Your task to perform on an android device: Open Google Chrome and click the shortcut for Amazon.com Image 0: 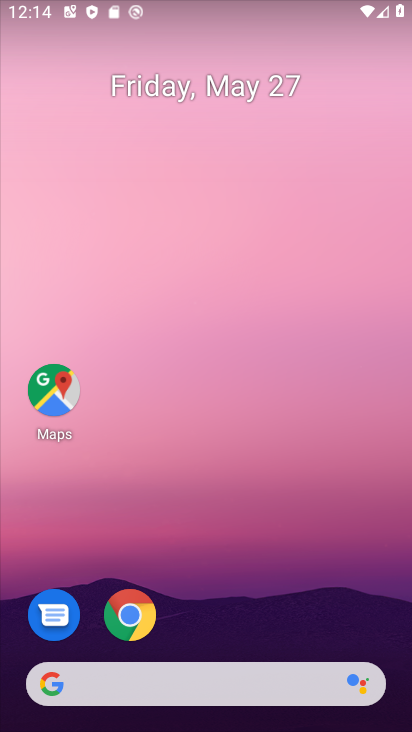
Step 0: drag from (246, 630) to (263, 71)
Your task to perform on an android device: Open Google Chrome and click the shortcut for Amazon.com Image 1: 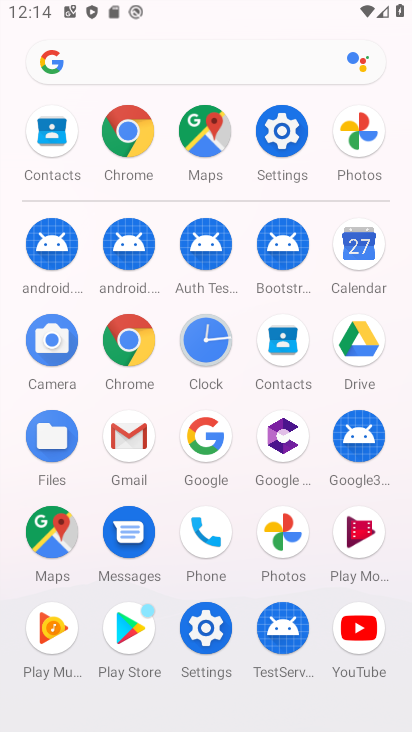
Step 1: click (133, 329)
Your task to perform on an android device: Open Google Chrome and click the shortcut for Amazon.com Image 2: 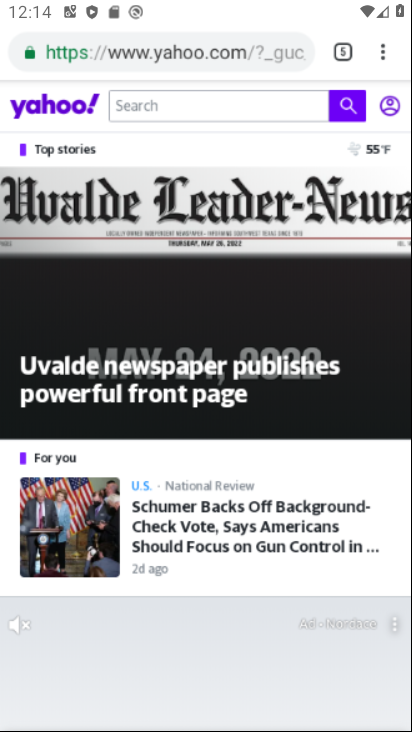
Step 2: drag from (385, 53) to (300, 203)
Your task to perform on an android device: Open Google Chrome and click the shortcut for Amazon.com Image 3: 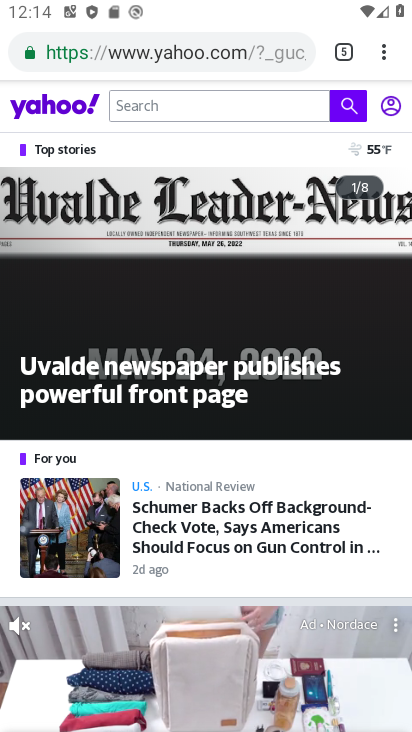
Step 3: drag from (395, 55) to (271, 104)
Your task to perform on an android device: Open Google Chrome and click the shortcut for Amazon.com Image 4: 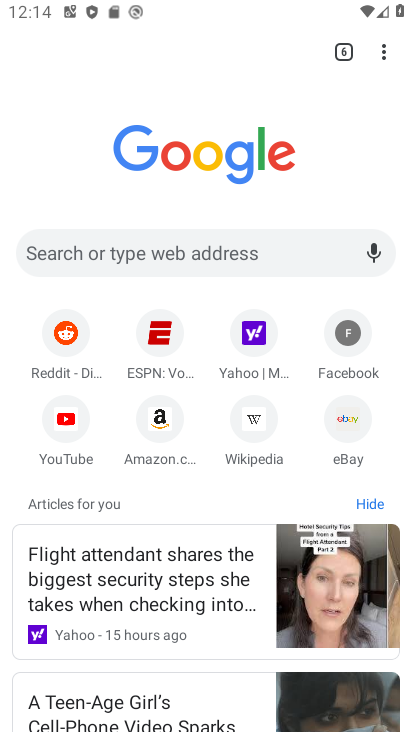
Step 4: click (165, 414)
Your task to perform on an android device: Open Google Chrome and click the shortcut for Amazon.com Image 5: 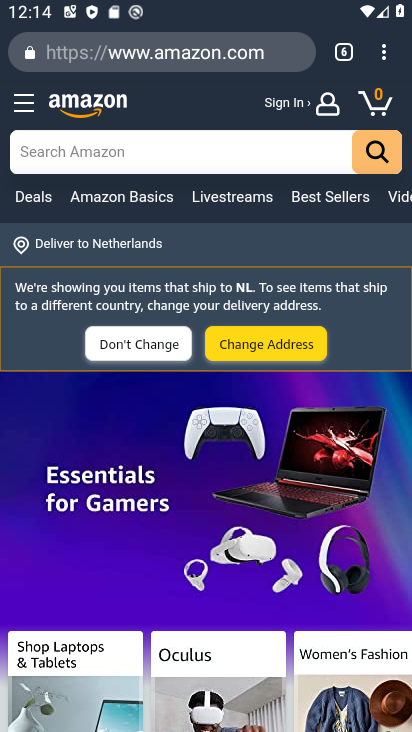
Step 5: task complete